Your task to perform on an android device: check google app version Image 0: 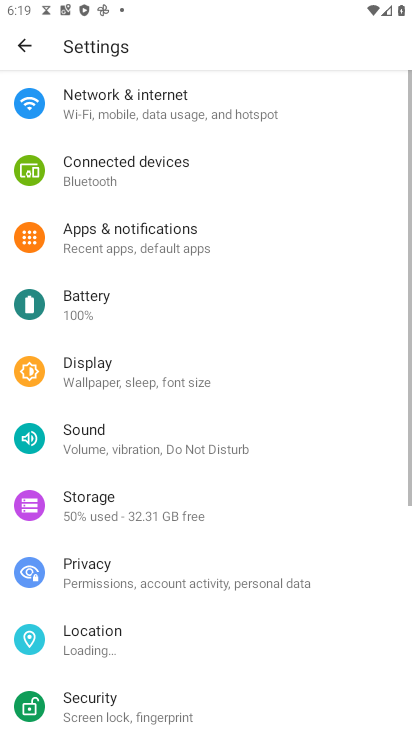
Step 0: drag from (208, 138) to (221, 27)
Your task to perform on an android device: check google app version Image 1: 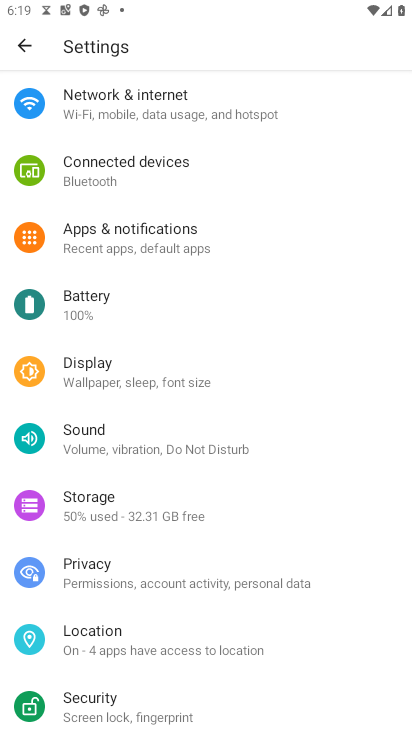
Step 1: drag from (113, 353) to (114, 187)
Your task to perform on an android device: check google app version Image 2: 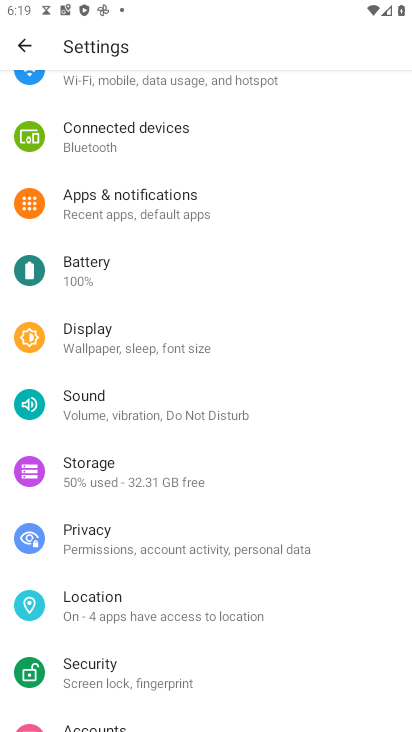
Step 2: drag from (121, 371) to (126, 289)
Your task to perform on an android device: check google app version Image 3: 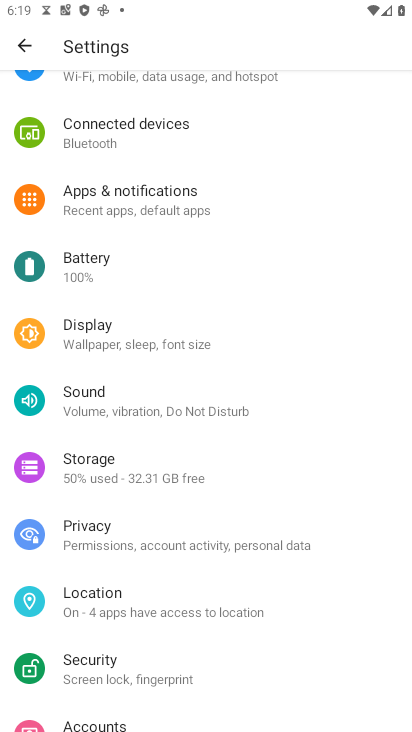
Step 3: drag from (182, 399) to (182, 243)
Your task to perform on an android device: check google app version Image 4: 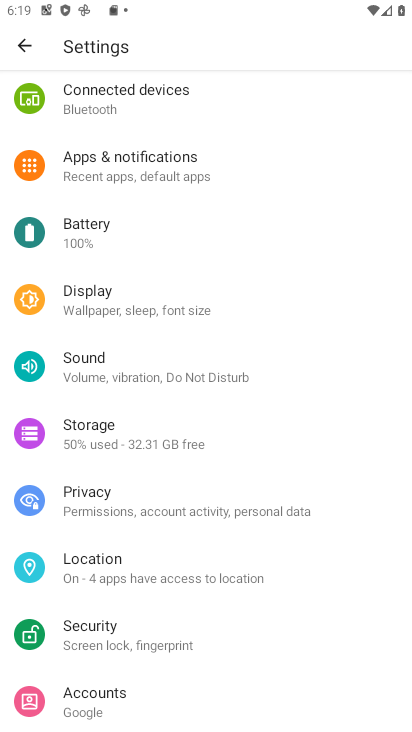
Step 4: drag from (148, 560) to (148, 419)
Your task to perform on an android device: check google app version Image 5: 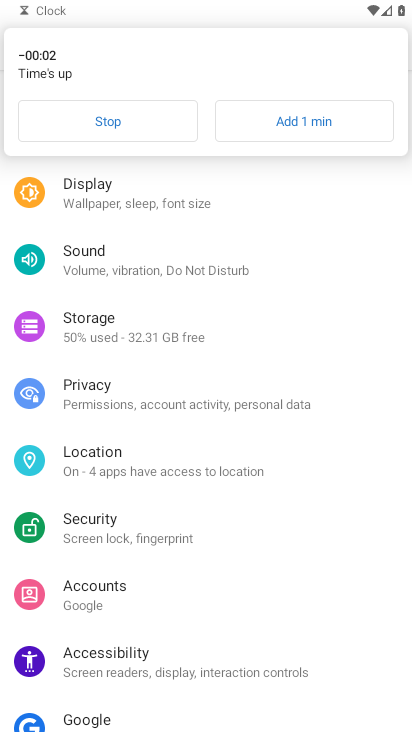
Step 5: drag from (134, 380) to (142, 258)
Your task to perform on an android device: check google app version Image 6: 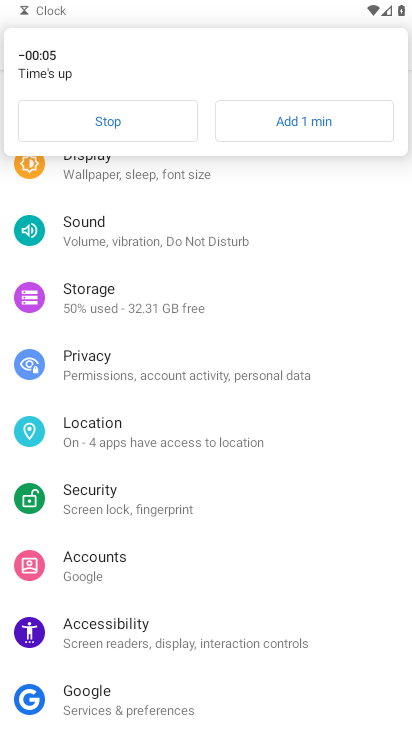
Step 6: drag from (165, 671) to (165, 389)
Your task to perform on an android device: check google app version Image 7: 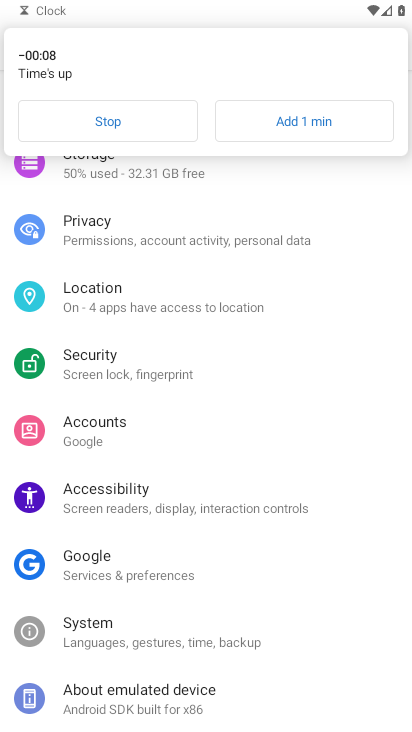
Step 7: click (117, 630)
Your task to perform on an android device: check google app version Image 8: 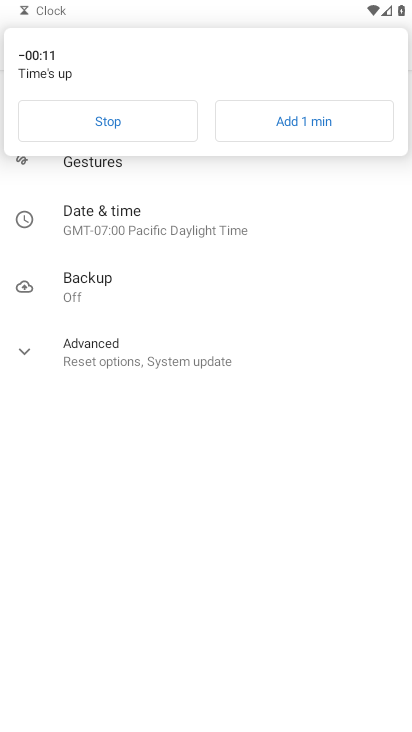
Step 8: click (128, 108)
Your task to perform on an android device: check google app version Image 9: 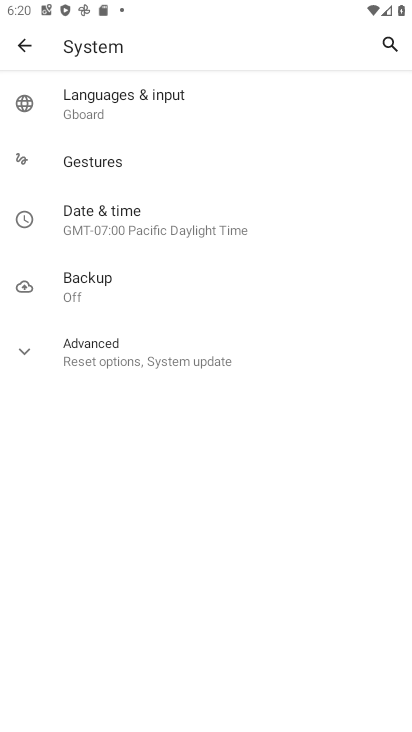
Step 9: click (101, 100)
Your task to perform on an android device: check google app version Image 10: 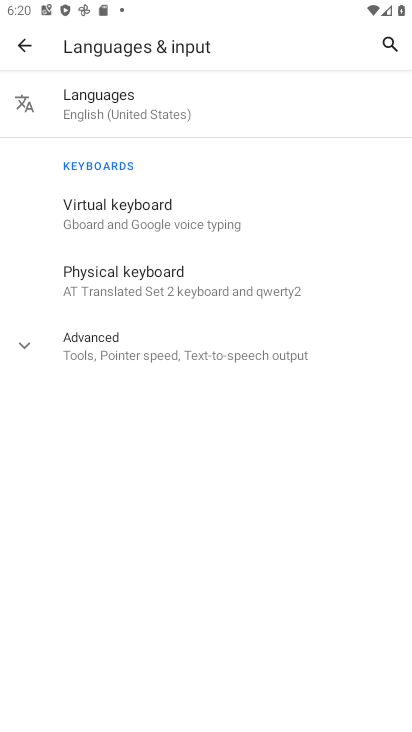
Step 10: click (133, 209)
Your task to perform on an android device: check google app version Image 11: 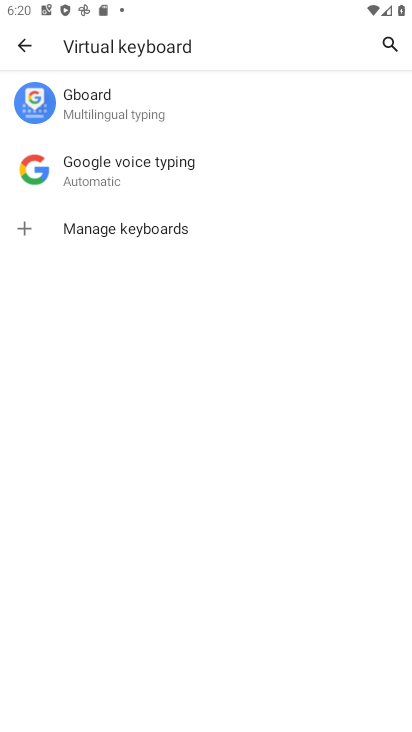
Step 11: click (92, 97)
Your task to perform on an android device: check google app version Image 12: 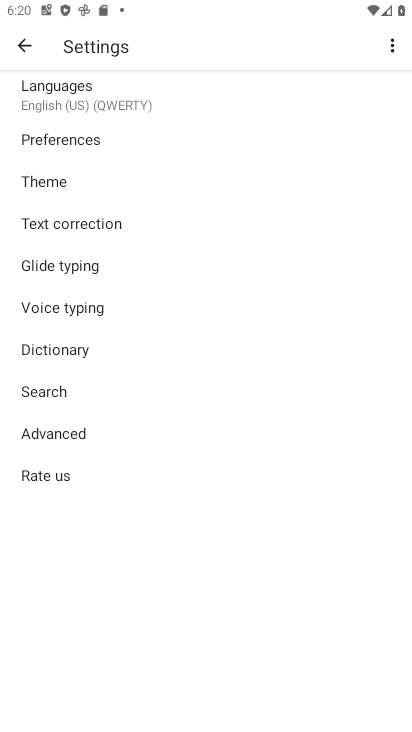
Step 12: click (44, 188)
Your task to perform on an android device: check google app version Image 13: 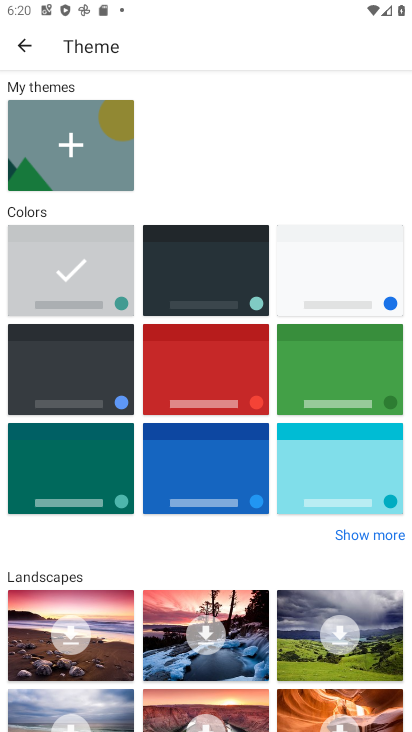
Step 13: click (231, 244)
Your task to perform on an android device: check google app version Image 14: 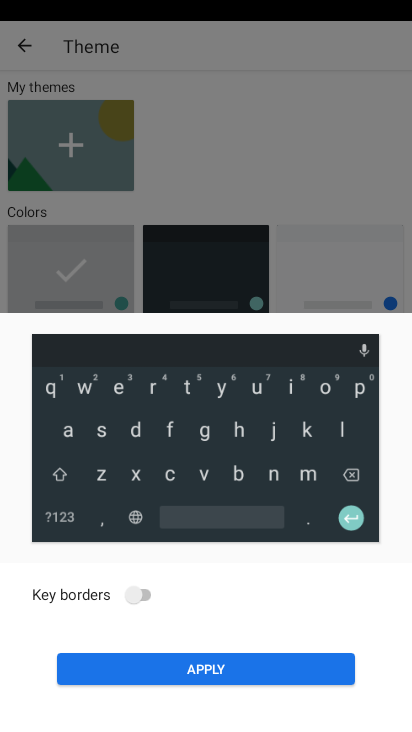
Step 14: click (192, 668)
Your task to perform on an android device: check google app version Image 15: 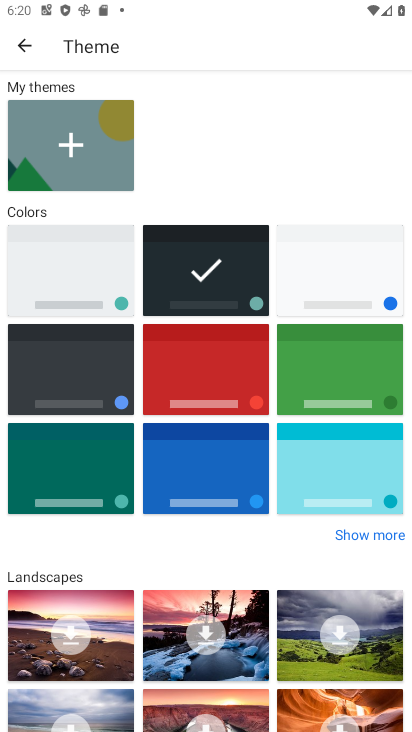
Step 15: task complete